Your task to perform on an android device: Find coffee shops on Maps Image 0: 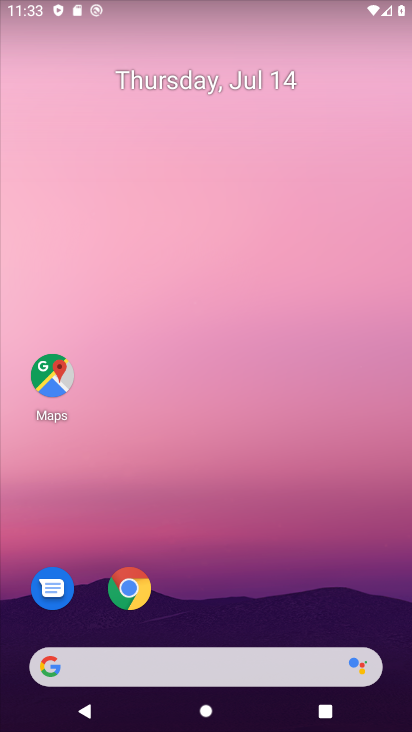
Step 0: click (43, 374)
Your task to perform on an android device: Find coffee shops on Maps Image 1: 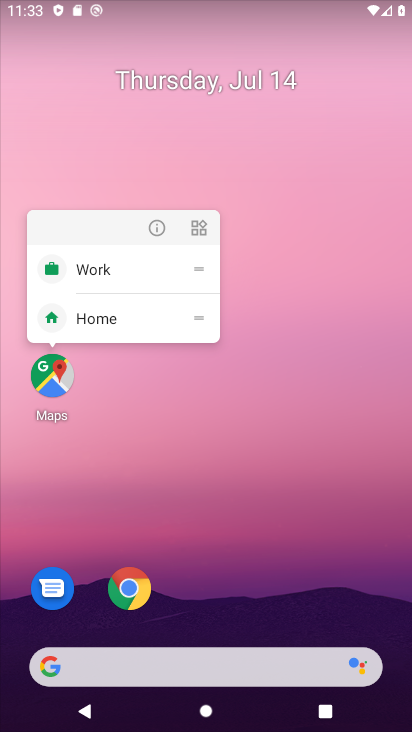
Step 1: click (57, 393)
Your task to perform on an android device: Find coffee shops on Maps Image 2: 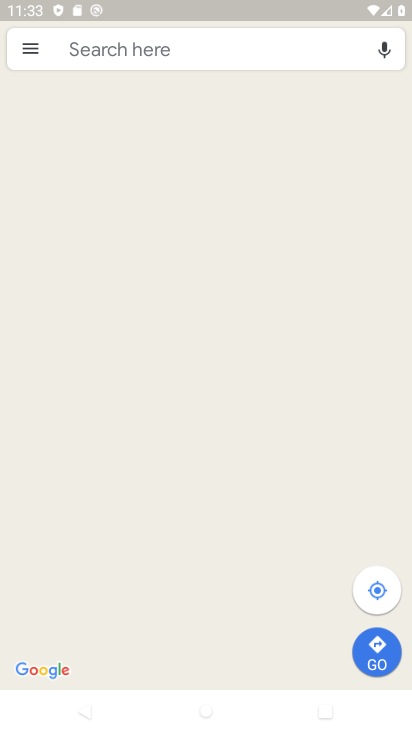
Step 2: click (137, 56)
Your task to perform on an android device: Find coffee shops on Maps Image 3: 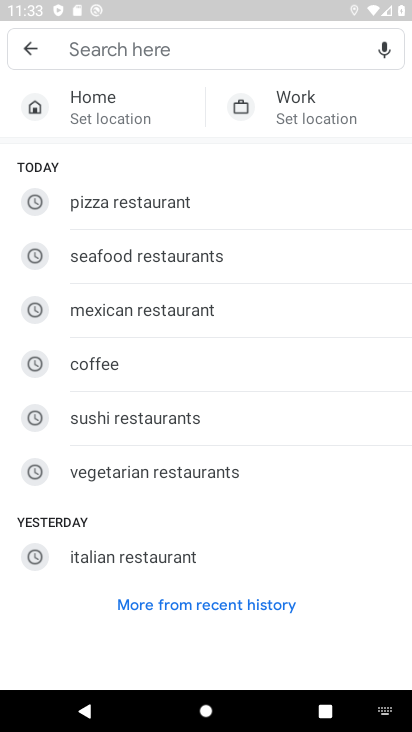
Step 3: type "coffee shops"
Your task to perform on an android device: Find coffee shops on Maps Image 4: 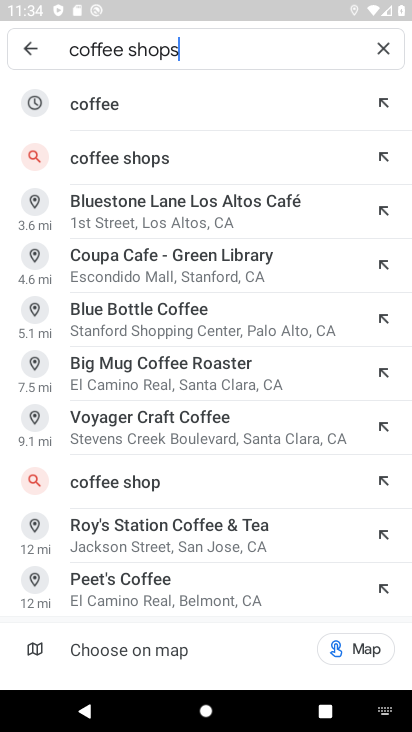
Step 4: click (158, 151)
Your task to perform on an android device: Find coffee shops on Maps Image 5: 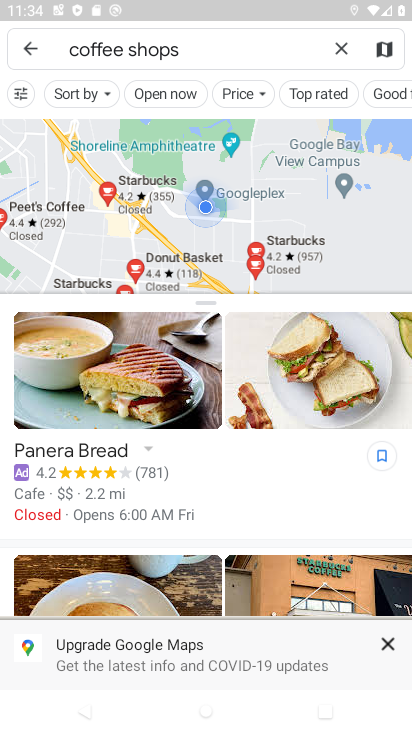
Step 5: task complete